Your task to perform on an android device: Open calendar and show me the fourth week of next month Image 0: 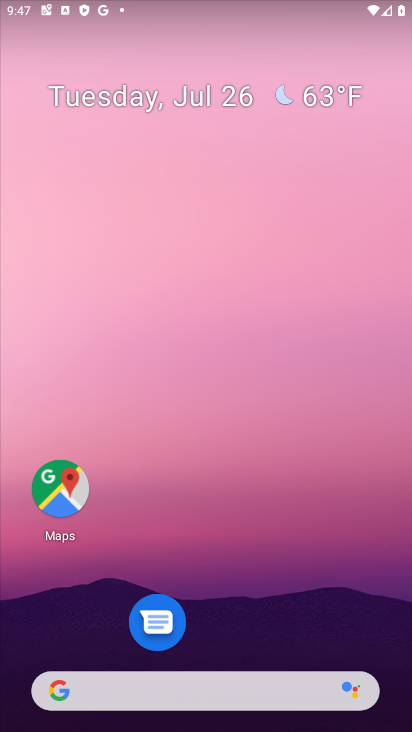
Step 0: drag from (178, 427) to (153, 42)
Your task to perform on an android device: Open calendar and show me the fourth week of next month Image 1: 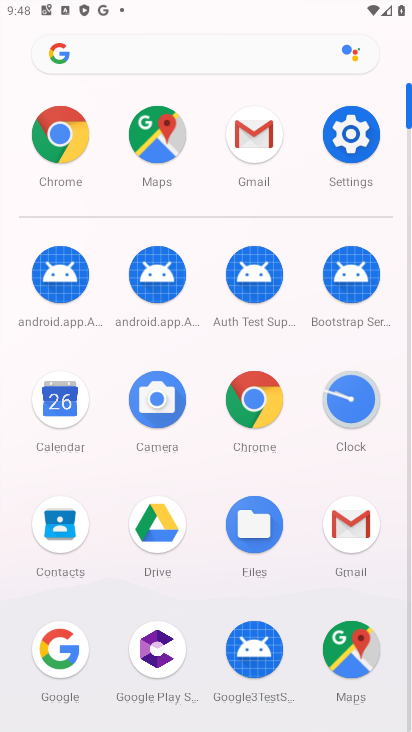
Step 1: click (57, 412)
Your task to perform on an android device: Open calendar and show me the fourth week of next month Image 2: 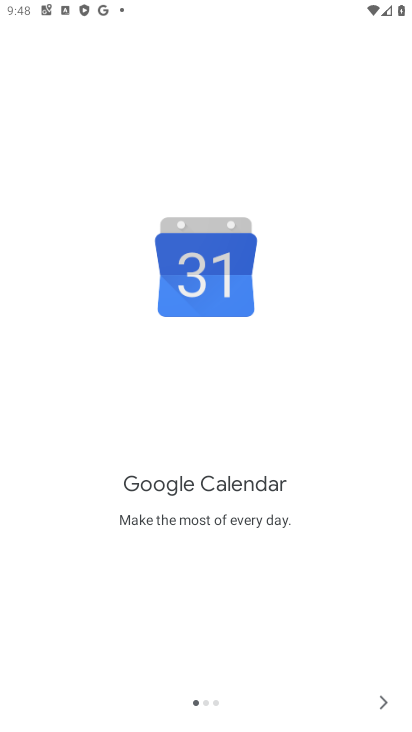
Step 2: click (383, 701)
Your task to perform on an android device: Open calendar and show me the fourth week of next month Image 3: 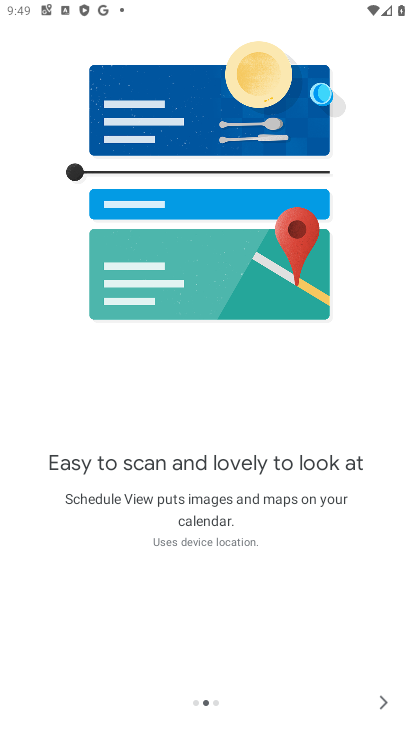
Step 3: click (377, 693)
Your task to perform on an android device: Open calendar and show me the fourth week of next month Image 4: 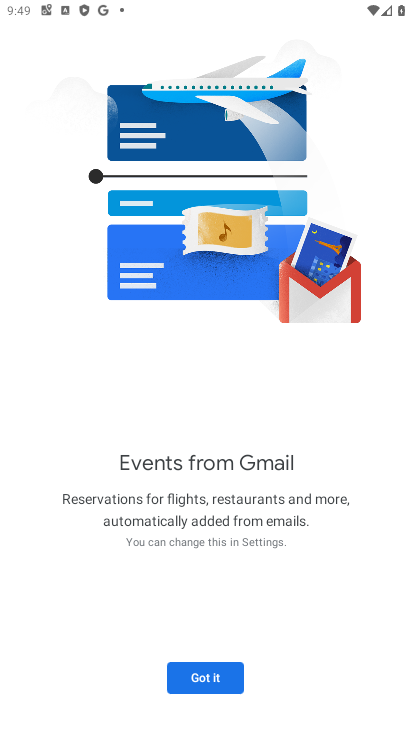
Step 4: click (223, 682)
Your task to perform on an android device: Open calendar and show me the fourth week of next month Image 5: 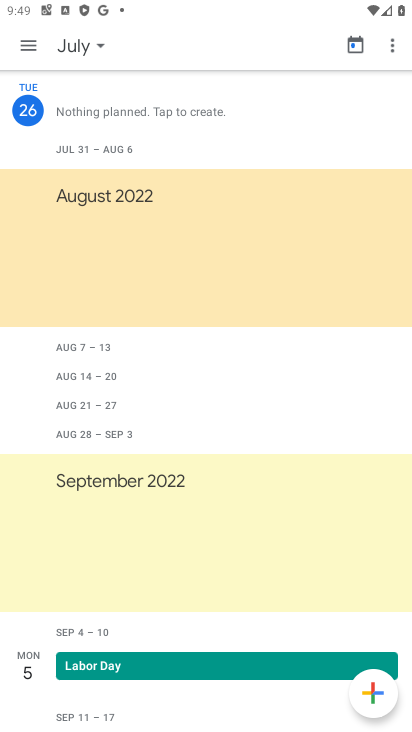
Step 5: click (74, 48)
Your task to perform on an android device: Open calendar and show me the fourth week of next month Image 6: 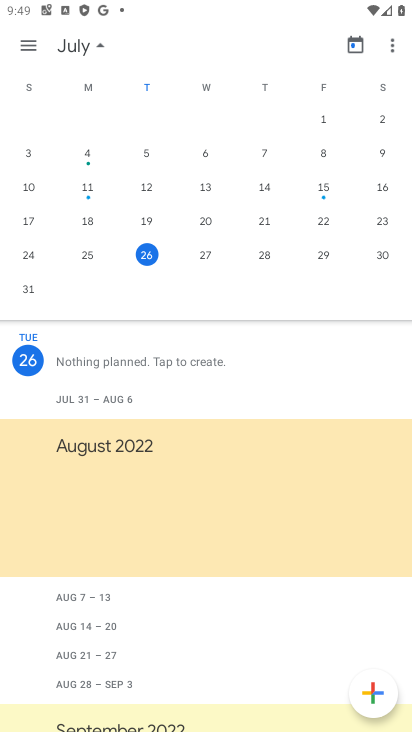
Step 6: drag from (294, 230) to (14, 285)
Your task to perform on an android device: Open calendar and show me the fourth week of next month Image 7: 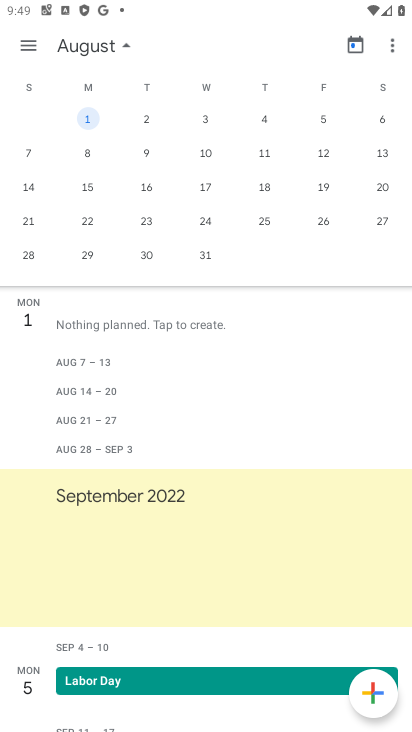
Step 7: click (31, 262)
Your task to perform on an android device: Open calendar and show me the fourth week of next month Image 8: 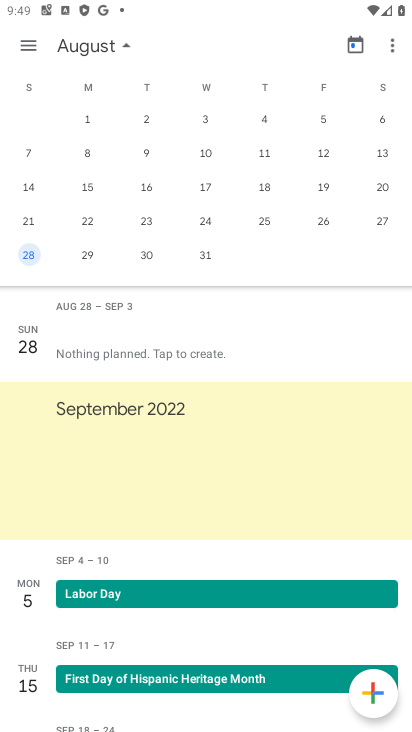
Step 8: task complete